Your task to perform on an android device: Go to Amazon Image 0: 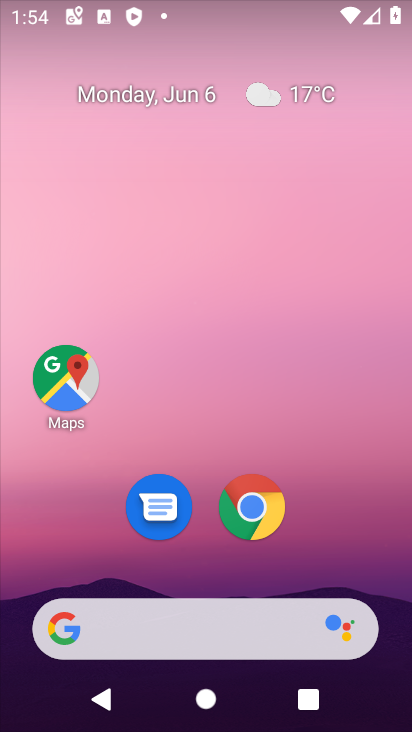
Step 0: click (255, 506)
Your task to perform on an android device: Go to Amazon Image 1: 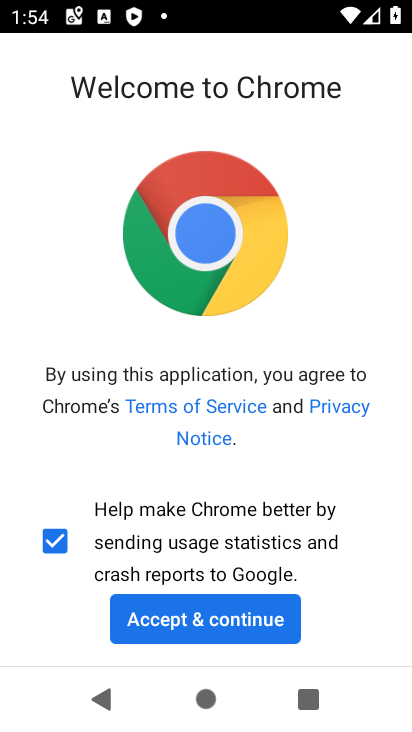
Step 1: click (248, 626)
Your task to perform on an android device: Go to Amazon Image 2: 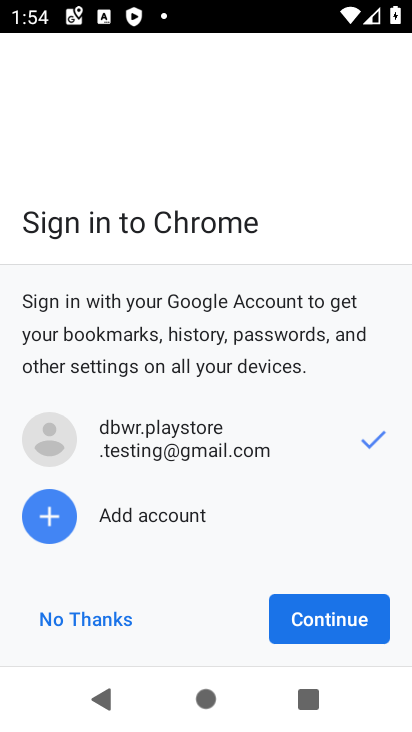
Step 2: click (313, 624)
Your task to perform on an android device: Go to Amazon Image 3: 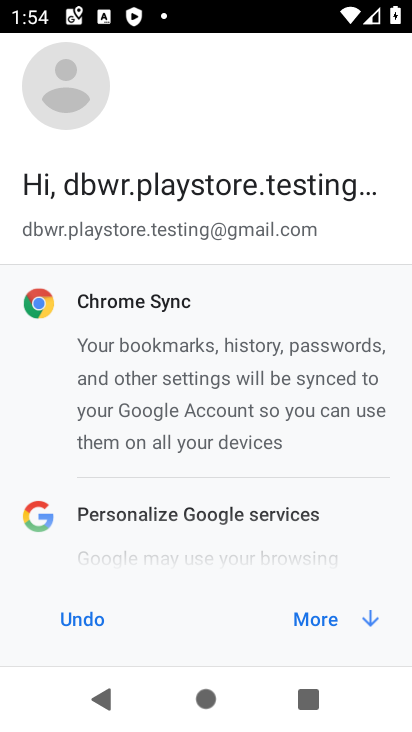
Step 3: click (313, 622)
Your task to perform on an android device: Go to Amazon Image 4: 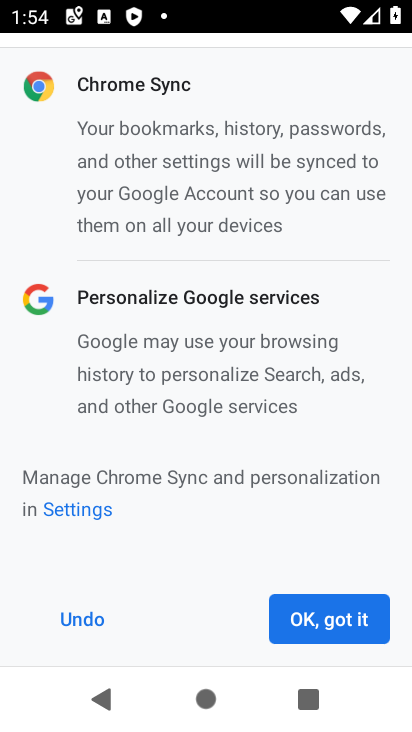
Step 4: click (313, 620)
Your task to perform on an android device: Go to Amazon Image 5: 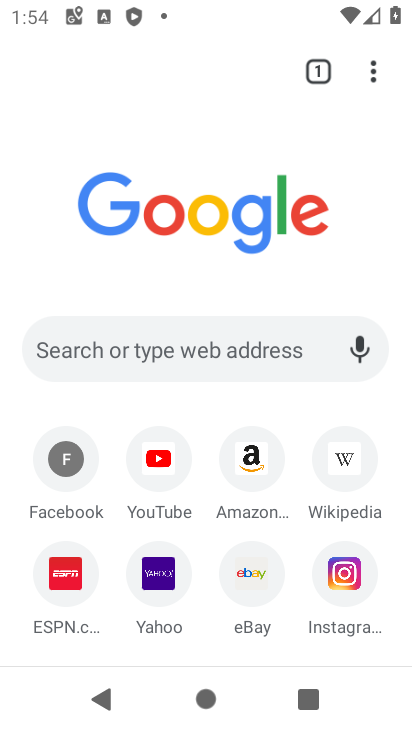
Step 5: click (251, 460)
Your task to perform on an android device: Go to Amazon Image 6: 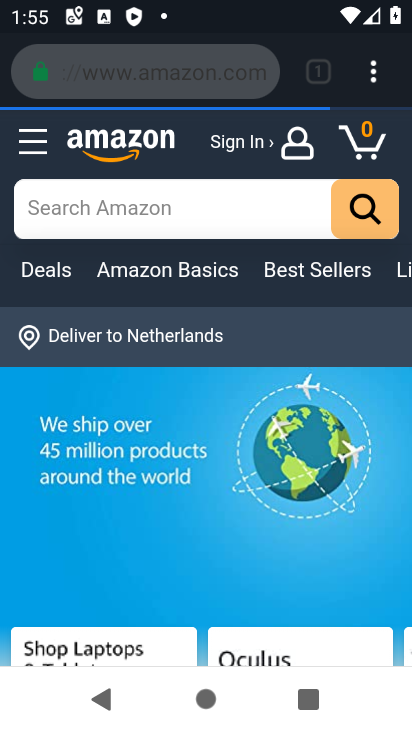
Step 6: task complete